Your task to perform on an android device: uninstall "TextNow: Call + Text Unlimited" Image 0: 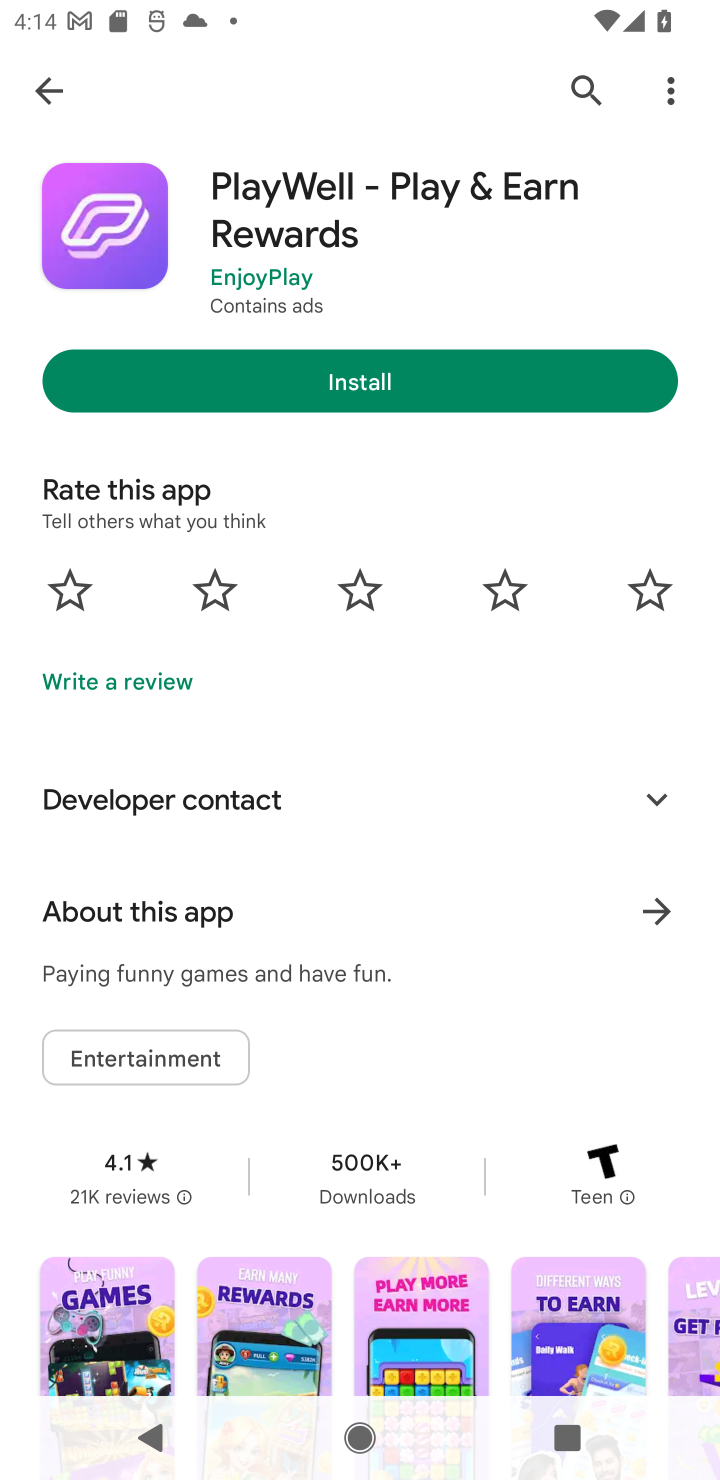
Step 0: press home button
Your task to perform on an android device: uninstall "TextNow: Call + Text Unlimited" Image 1: 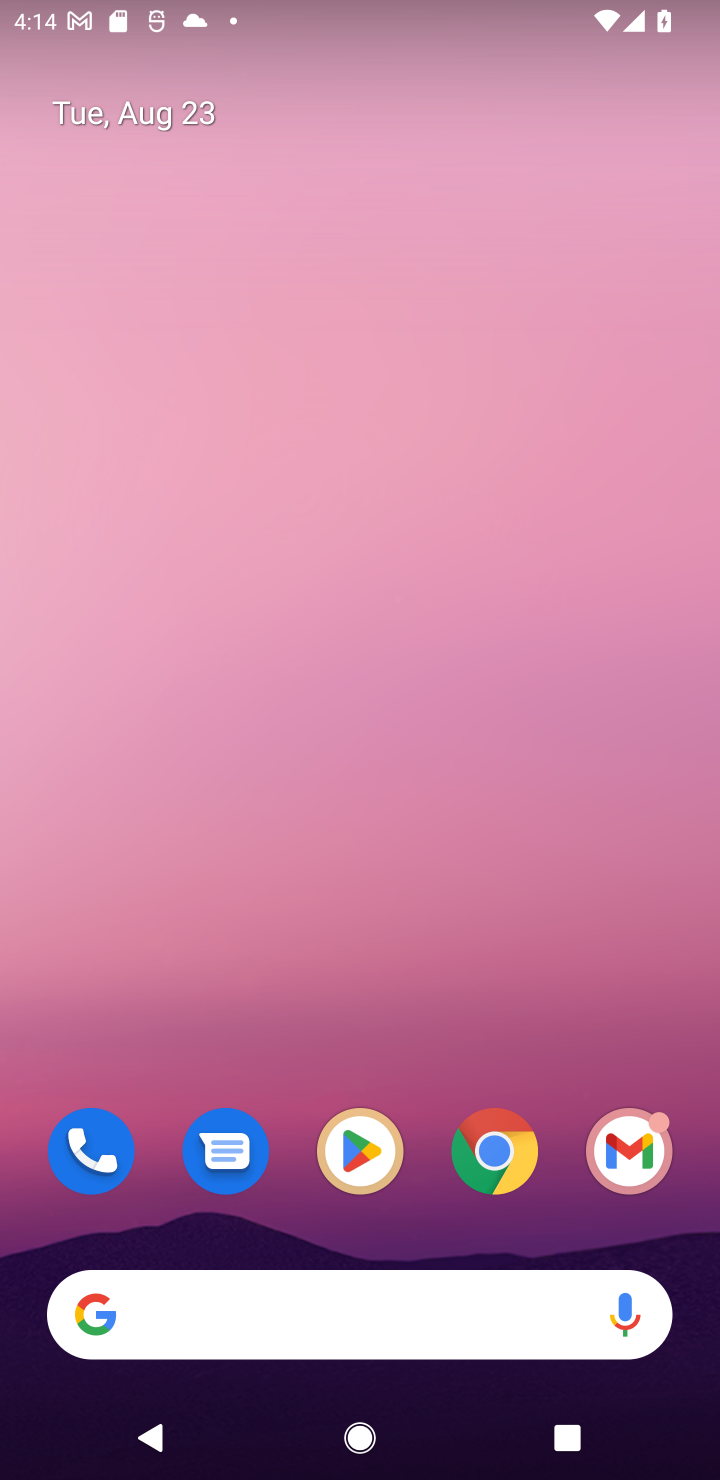
Step 1: click (363, 1151)
Your task to perform on an android device: uninstall "TextNow: Call + Text Unlimited" Image 2: 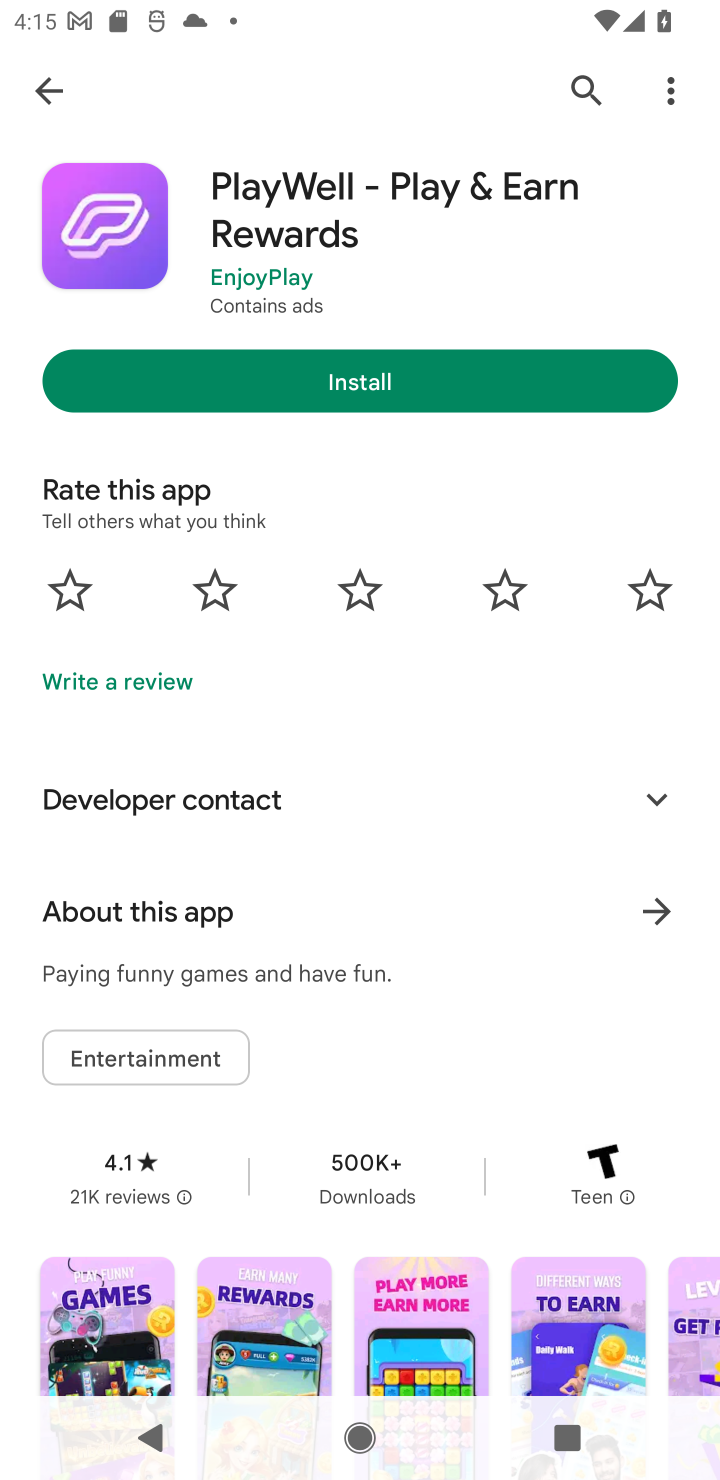
Step 2: click (581, 71)
Your task to perform on an android device: uninstall "TextNow: Call + Text Unlimited" Image 3: 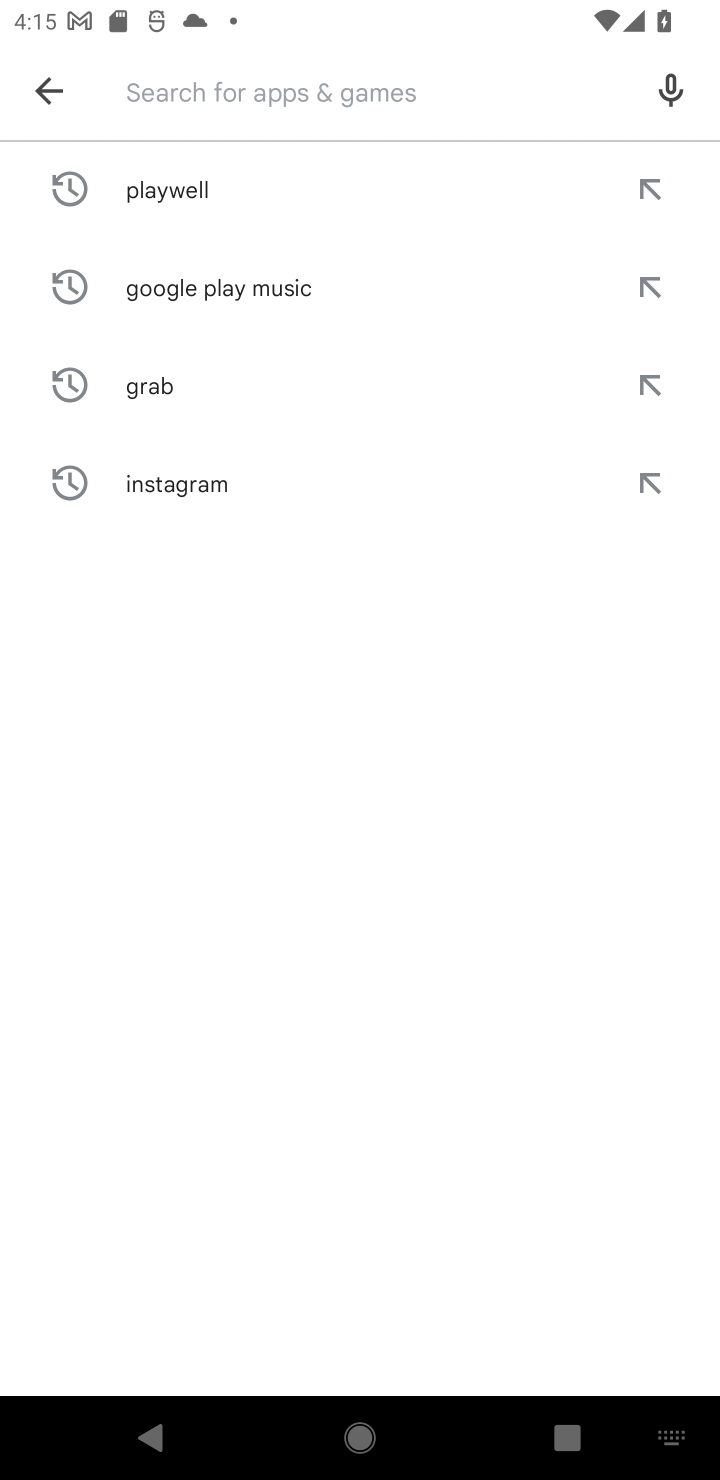
Step 3: type "TextNow: Call + Text Unlimited"
Your task to perform on an android device: uninstall "TextNow: Call + Text Unlimited" Image 4: 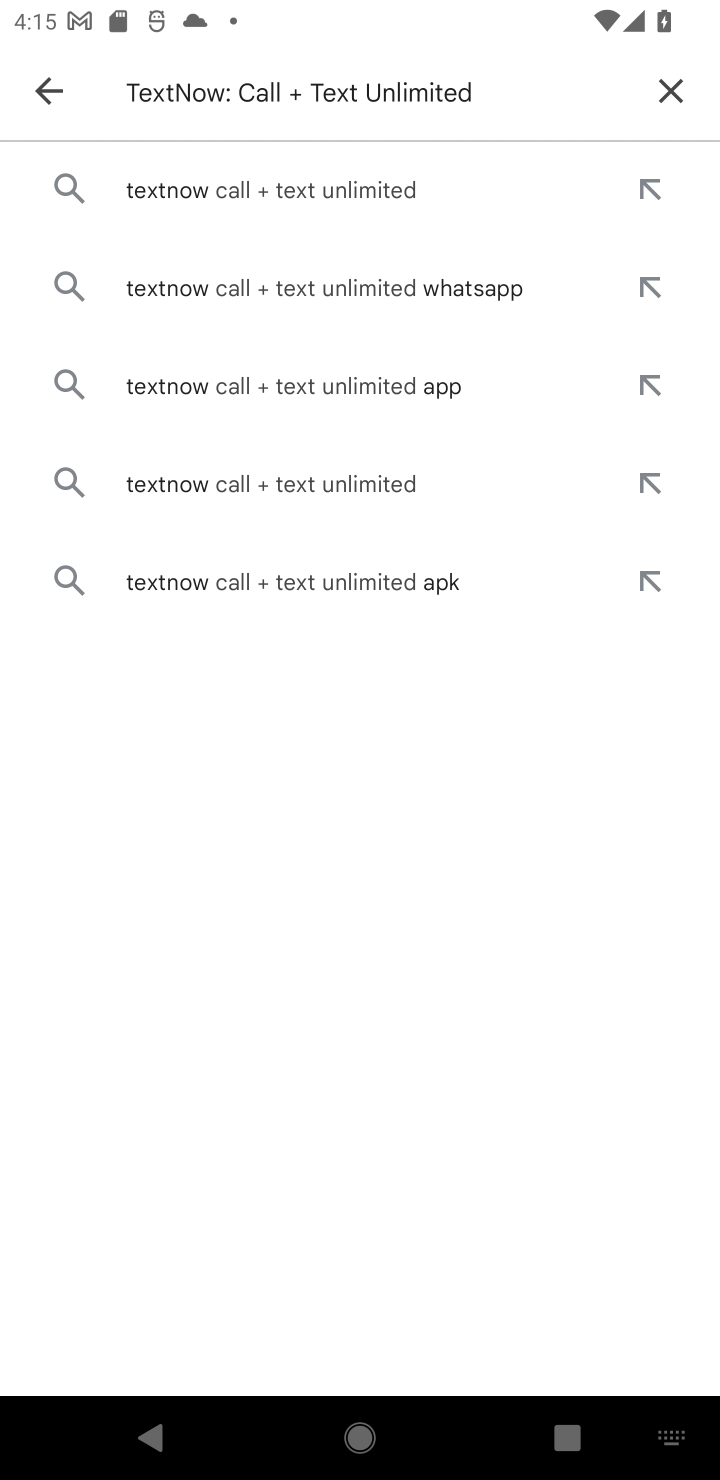
Step 4: click (280, 185)
Your task to perform on an android device: uninstall "TextNow: Call + Text Unlimited" Image 5: 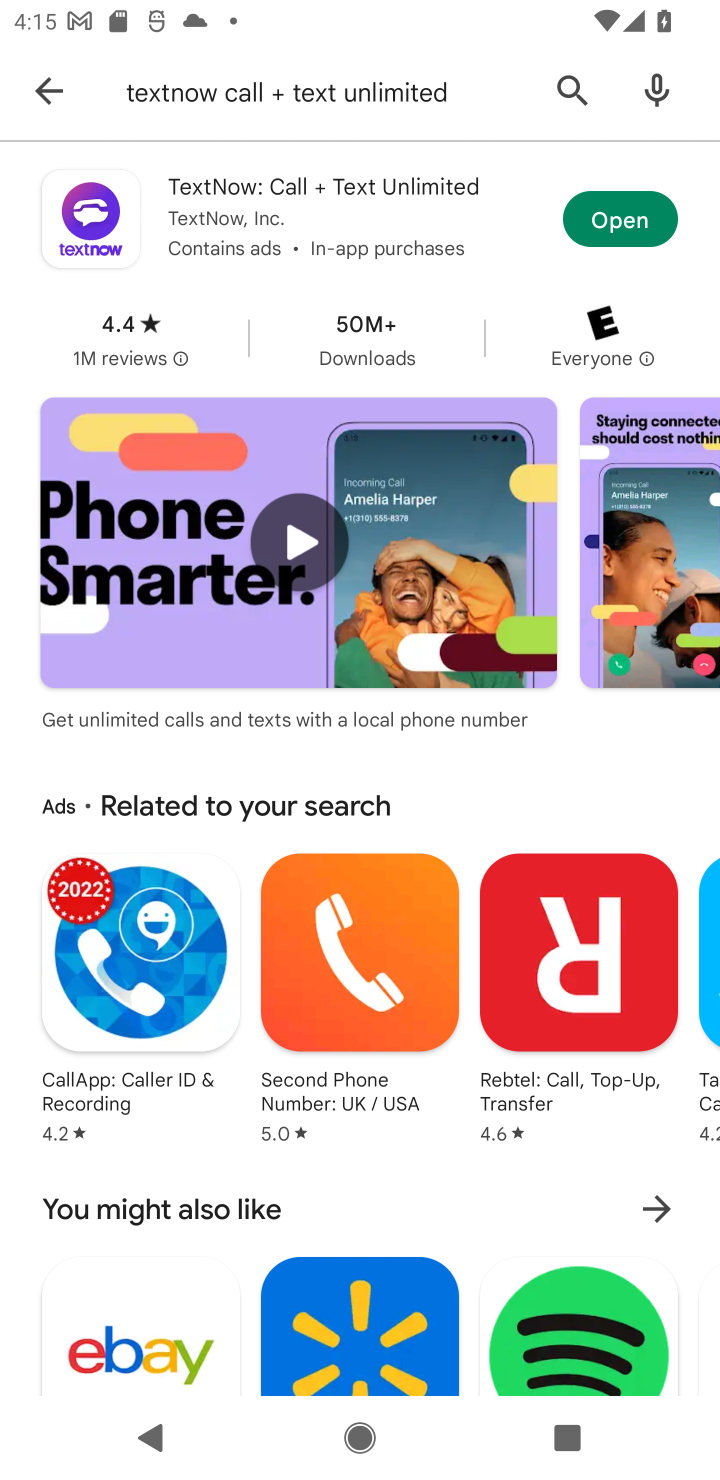
Step 5: click (108, 210)
Your task to perform on an android device: uninstall "TextNow: Call + Text Unlimited" Image 6: 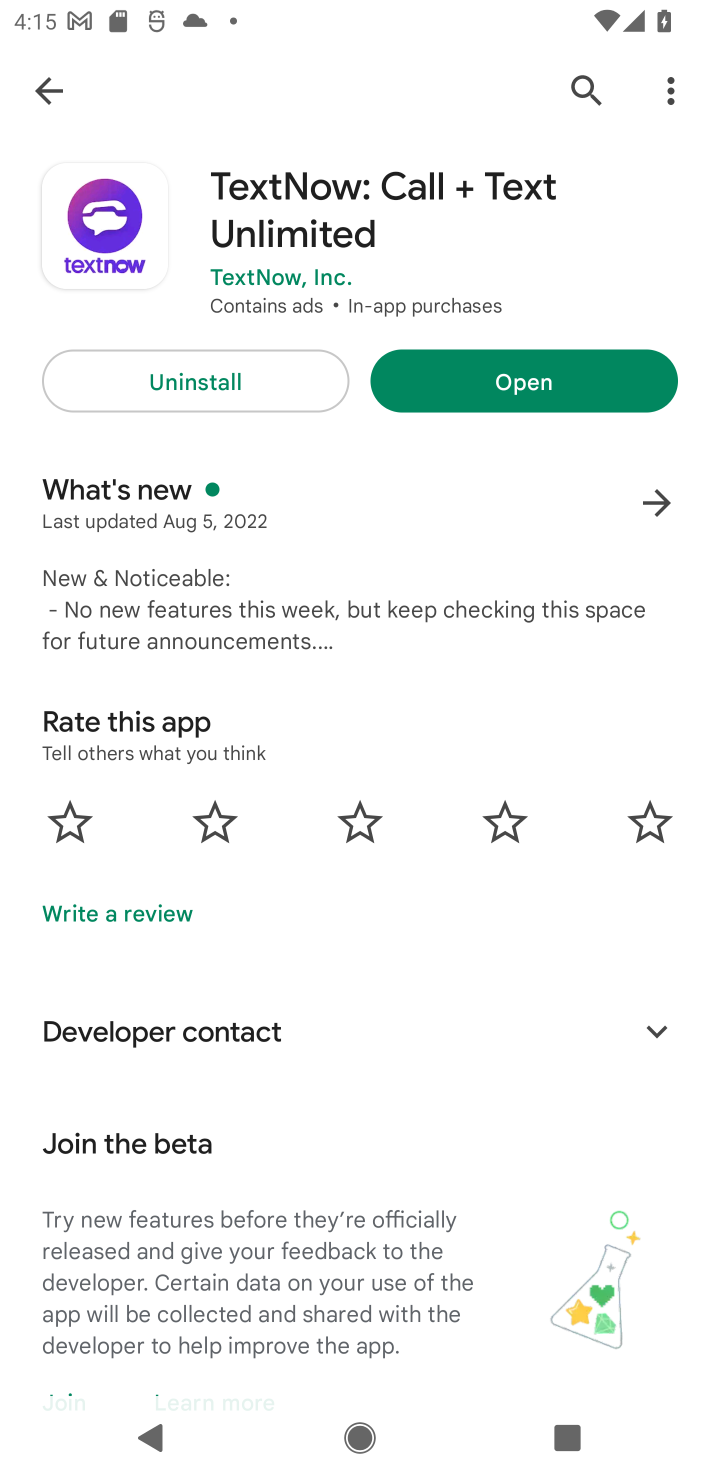
Step 6: click (225, 374)
Your task to perform on an android device: uninstall "TextNow: Call + Text Unlimited" Image 7: 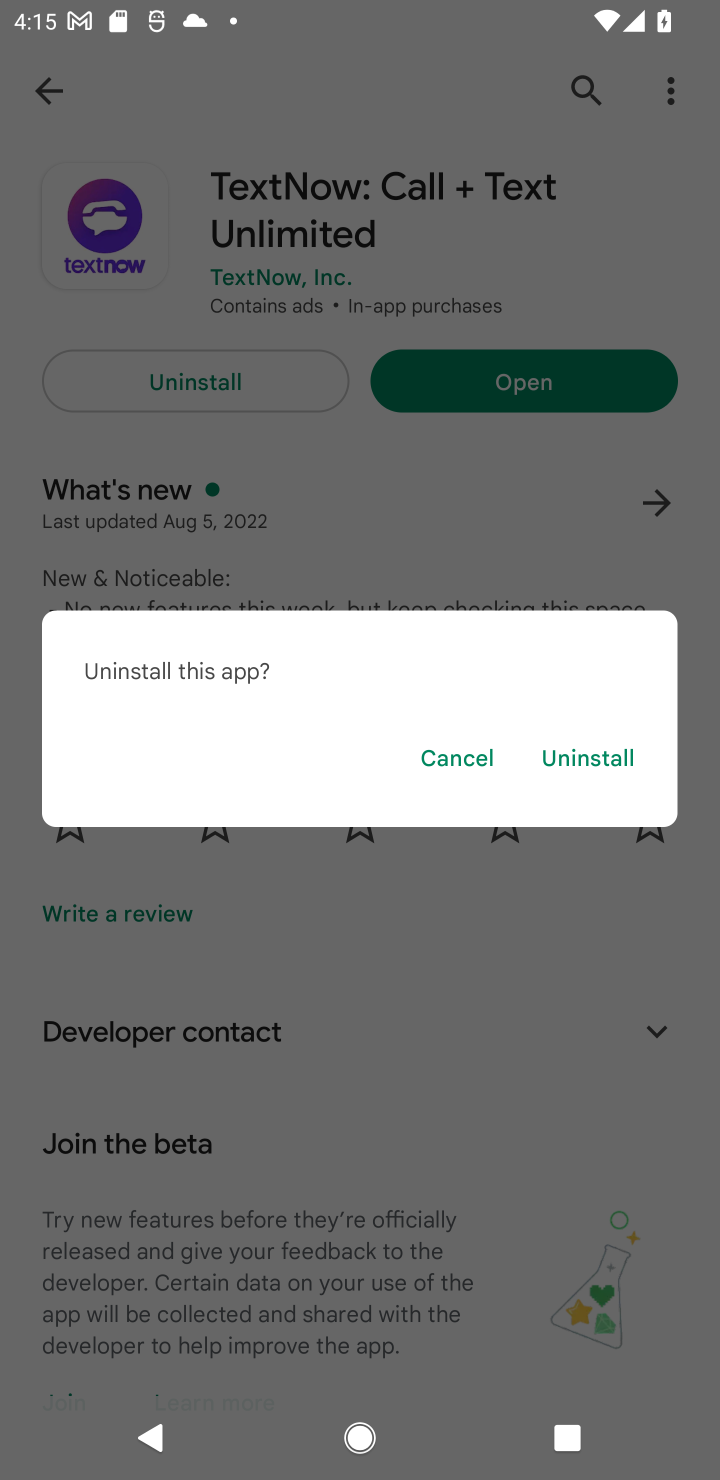
Step 7: click (583, 762)
Your task to perform on an android device: uninstall "TextNow: Call + Text Unlimited" Image 8: 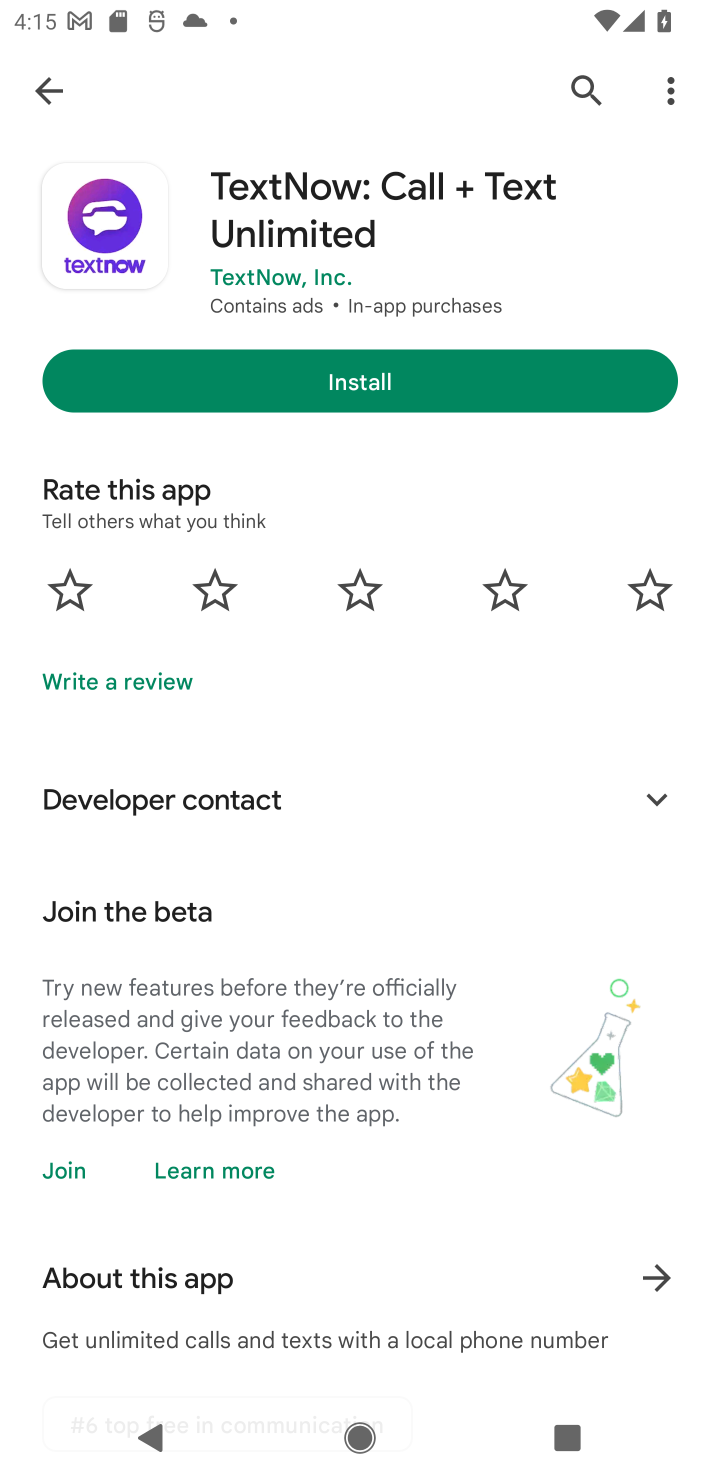
Step 8: task complete